Your task to perform on an android device: turn on priority inbox in the gmail app Image 0: 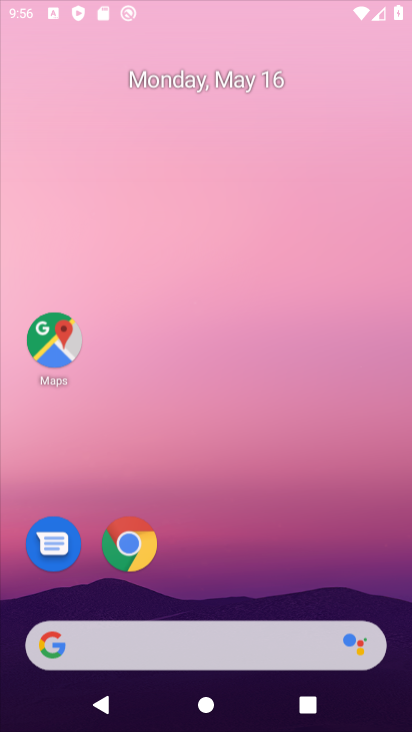
Step 0: press home button
Your task to perform on an android device: turn on priority inbox in the gmail app Image 1: 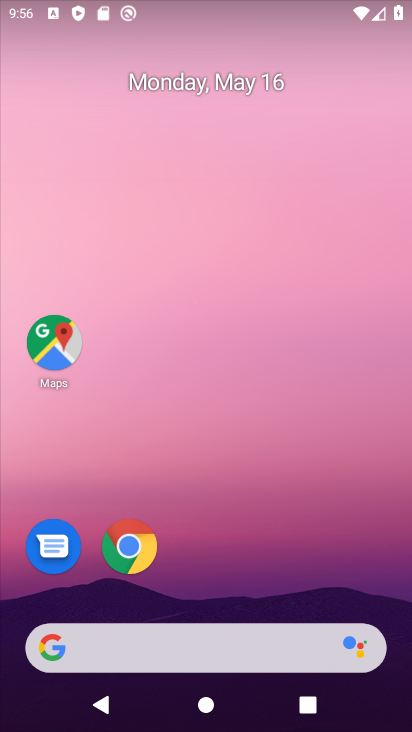
Step 1: drag from (303, 611) to (297, 188)
Your task to perform on an android device: turn on priority inbox in the gmail app Image 2: 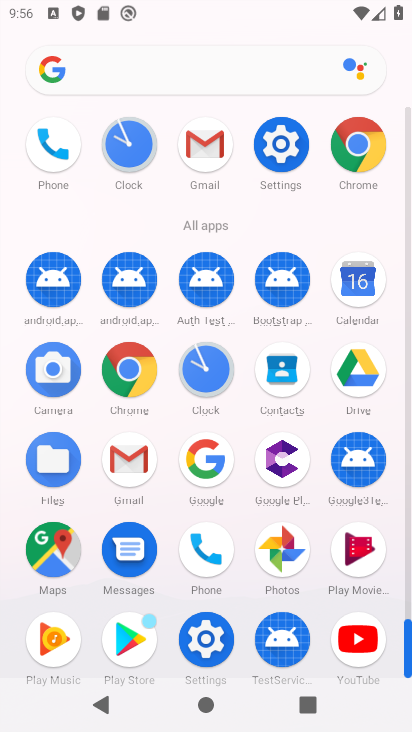
Step 2: click (203, 149)
Your task to perform on an android device: turn on priority inbox in the gmail app Image 3: 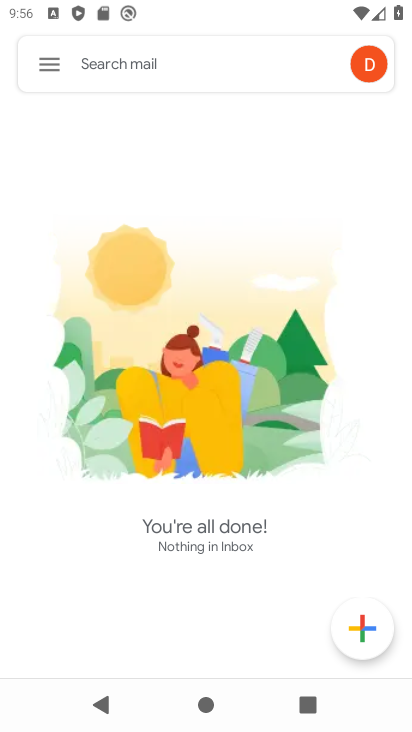
Step 3: click (42, 65)
Your task to perform on an android device: turn on priority inbox in the gmail app Image 4: 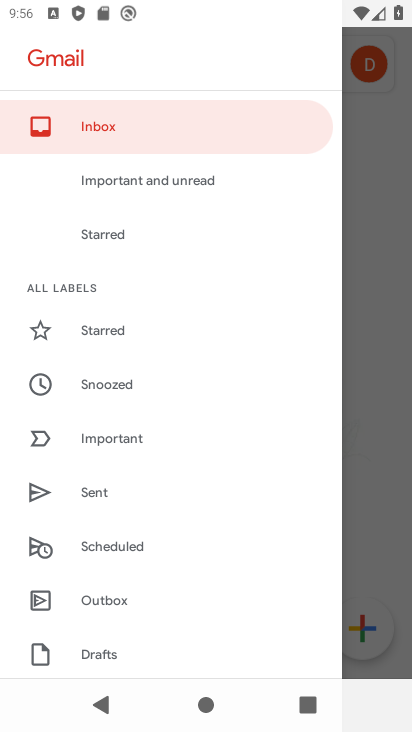
Step 4: drag from (152, 610) to (165, 258)
Your task to perform on an android device: turn on priority inbox in the gmail app Image 5: 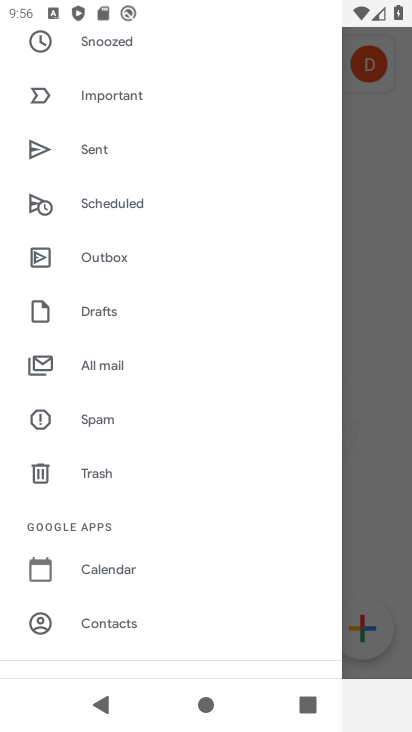
Step 5: drag from (95, 571) to (266, 66)
Your task to perform on an android device: turn on priority inbox in the gmail app Image 6: 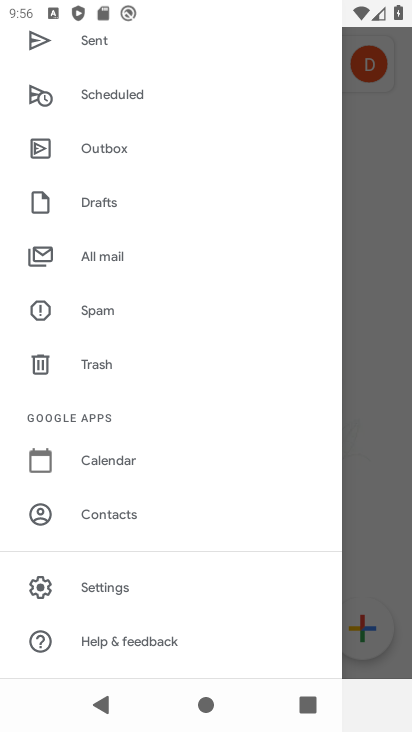
Step 6: click (114, 583)
Your task to perform on an android device: turn on priority inbox in the gmail app Image 7: 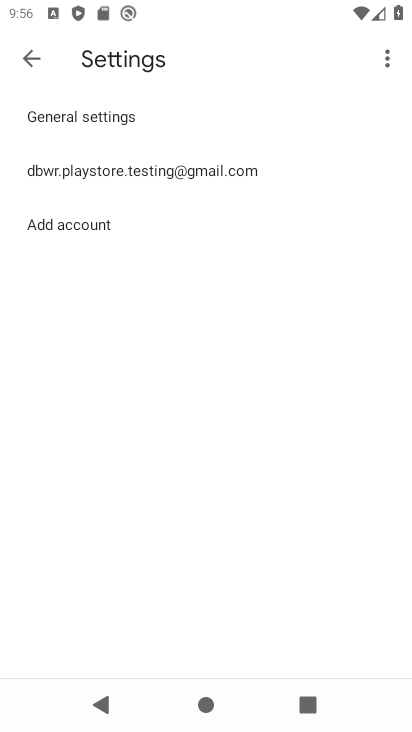
Step 7: click (189, 161)
Your task to perform on an android device: turn on priority inbox in the gmail app Image 8: 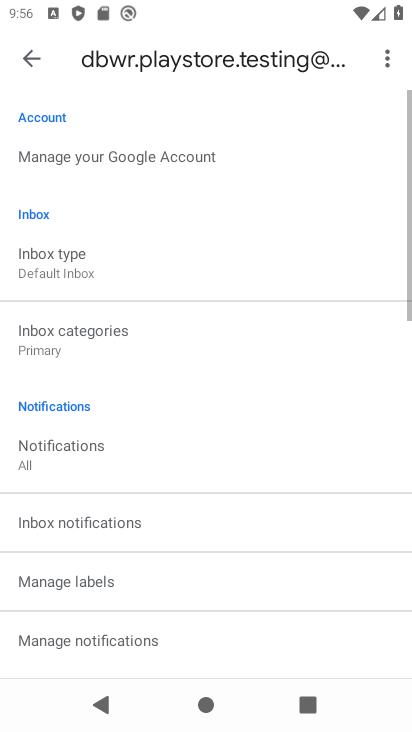
Step 8: click (116, 287)
Your task to perform on an android device: turn on priority inbox in the gmail app Image 9: 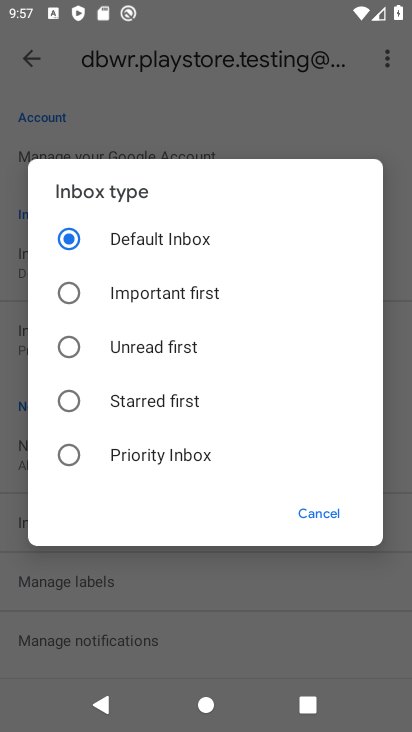
Step 9: click (168, 431)
Your task to perform on an android device: turn on priority inbox in the gmail app Image 10: 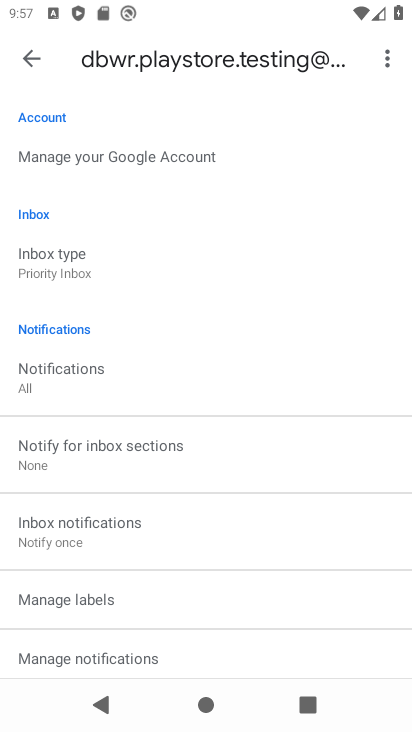
Step 10: task complete